Your task to perform on an android device: turn vacation reply on in the gmail app Image 0: 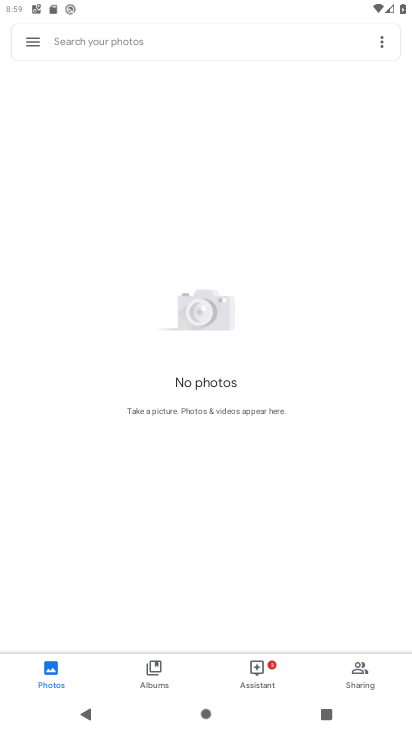
Step 0: press home button
Your task to perform on an android device: turn vacation reply on in the gmail app Image 1: 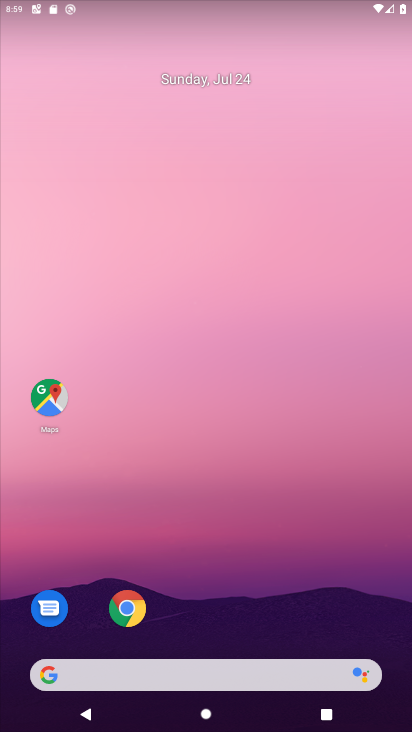
Step 1: drag from (305, 623) to (321, 161)
Your task to perform on an android device: turn vacation reply on in the gmail app Image 2: 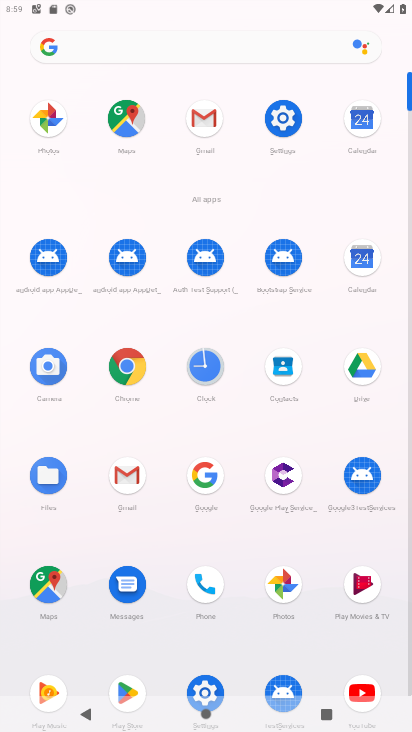
Step 2: click (202, 117)
Your task to perform on an android device: turn vacation reply on in the gmail app Image 3: 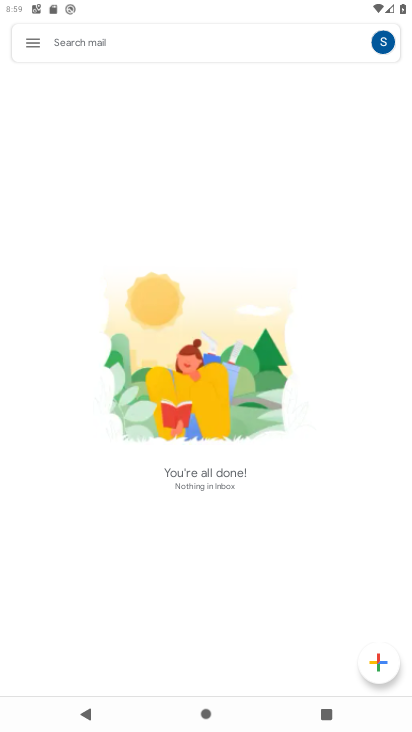
Step 3: click (44, 41)
Your task to perform on an android device: turn vacation reply on in the gmail app Image 4: 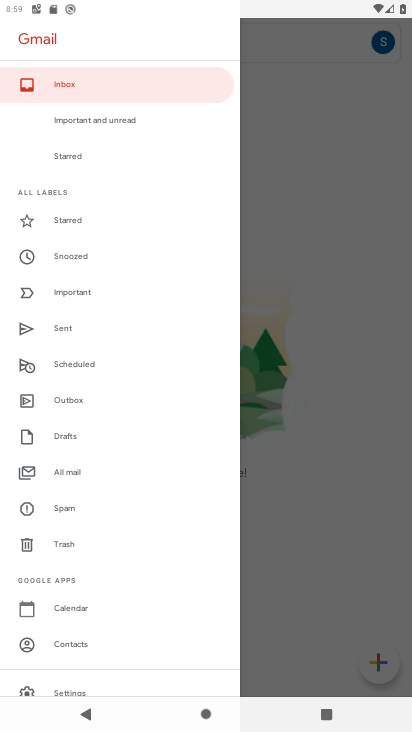
Step 4: drag from (92, 507) to (88, 286)
Your task to perform on an android device: turn vacation reply on in the gmail app Image 5: 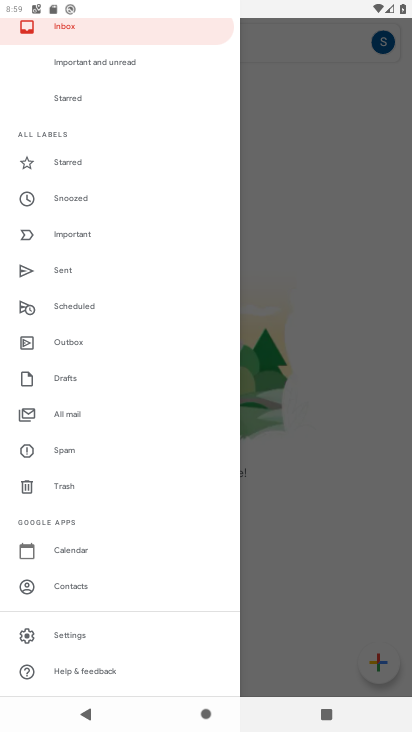
Step 5: click (92, 639)
Your task to perform on an android device: turn vacation reply on in the gmail app Image 6: 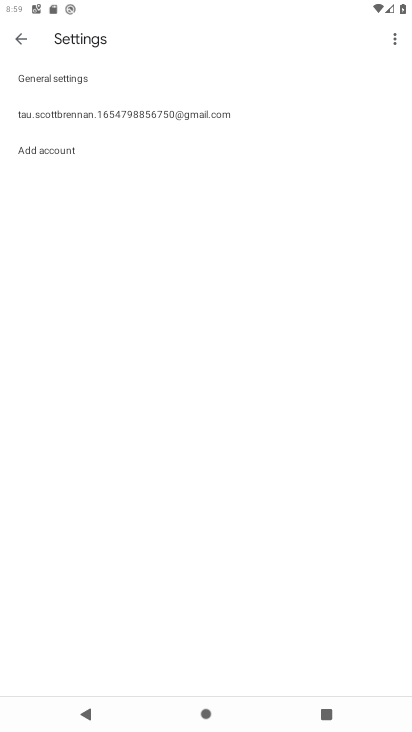
Step 6: click (140, 117)
Your task to perform on an android device: turn vacation reply on in the gmail app Image 7: 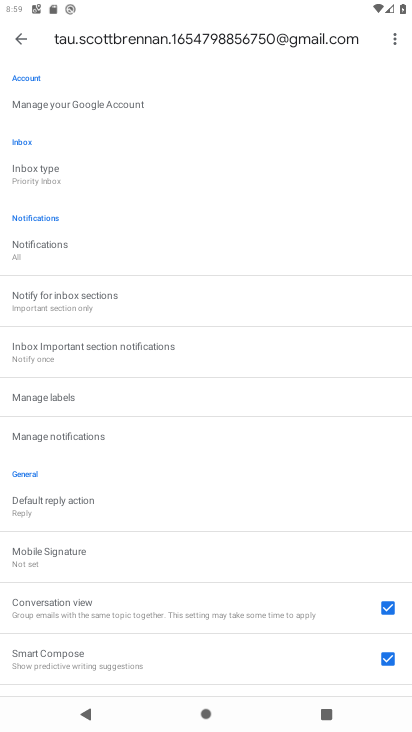
Step 7: drag from (151, 664) to (151, 225)
Your task to perform on an android device: turn vacation reply on in the gmail app Image 8: 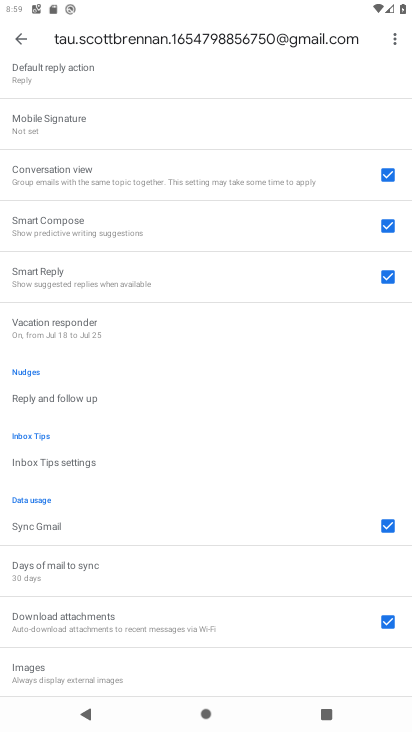
Step 8: click (125, 334)
Your task to perform on an android device: turn vacation reply on in the gmail app Image 9: 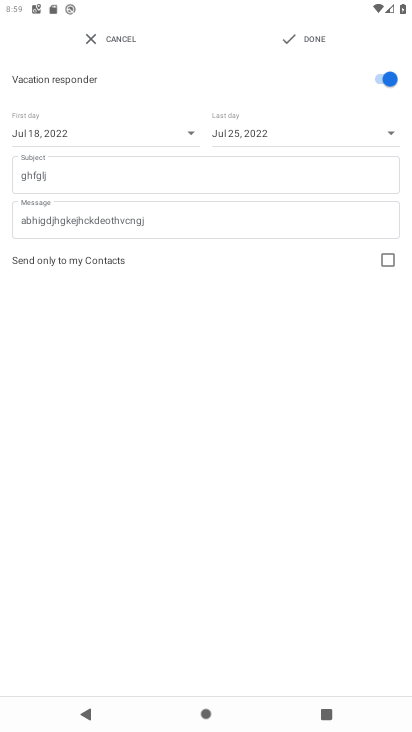
Step 9: click (316, 36)
Your task to perform on an android device: turn vacation reply on in the gmail app Image 10: 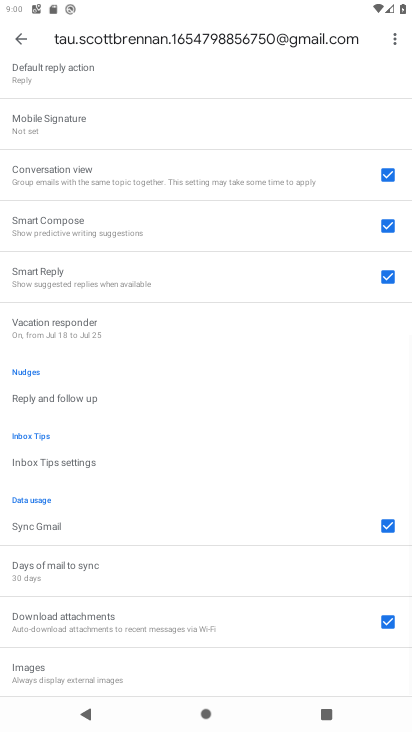
Step 10: task complete